Your task to perform on an android device: View the shopping cart on target. Add corsair k70 to the cart on target Image 0: 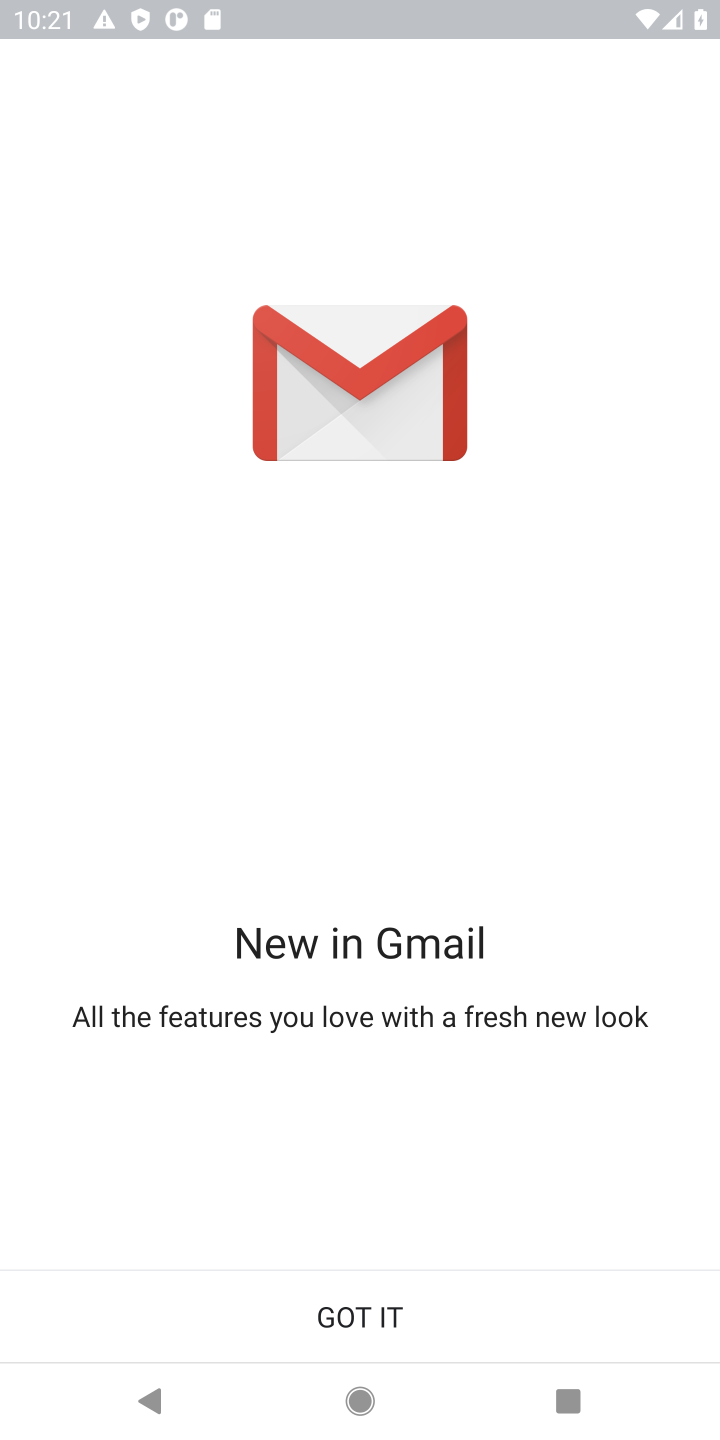
Step 0: press home button
Your task to perform on an android device: View the shopping cart on target. Add corsair k70 to the cart on target Image 1: 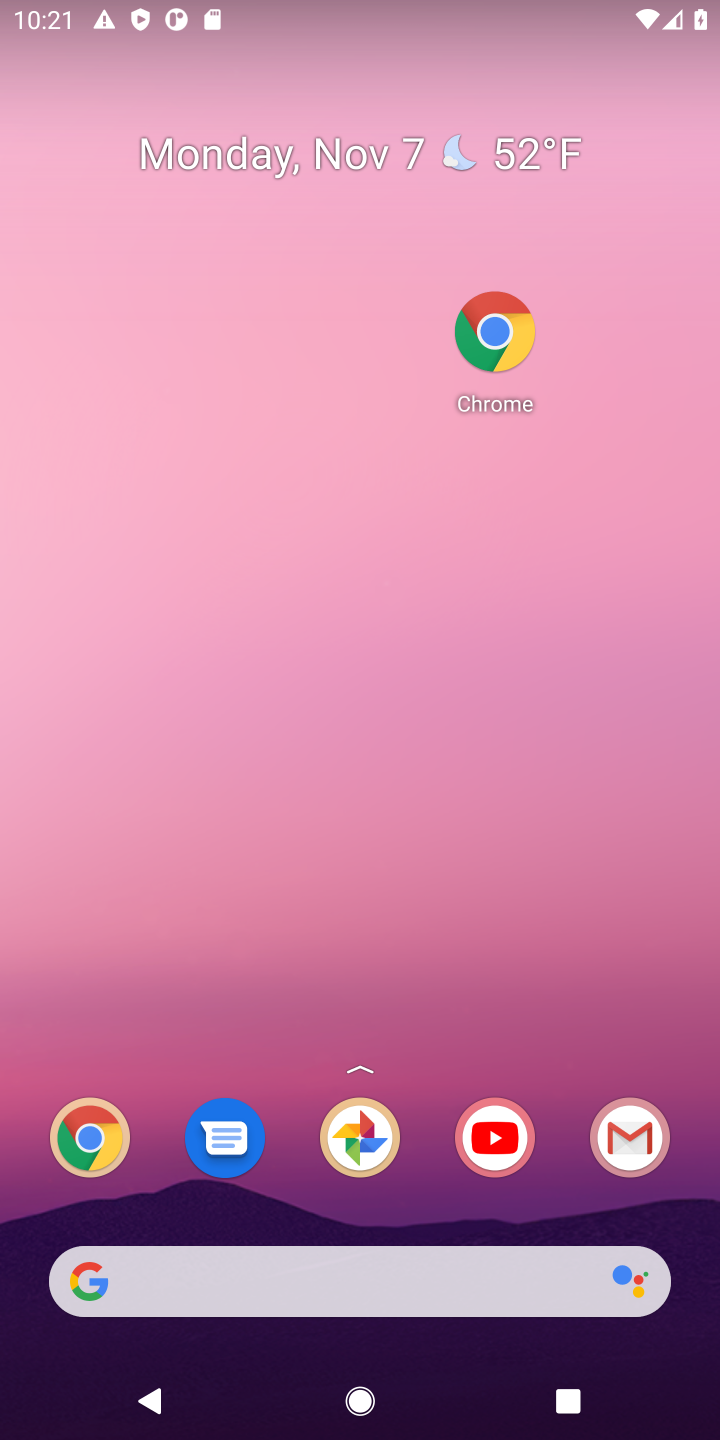
Step 1: drag from (424, 1215) to (214, 235)
Your task to perform on an android device: View the shopping cart on target. Add corsair k70 to the cart on target Image 2: 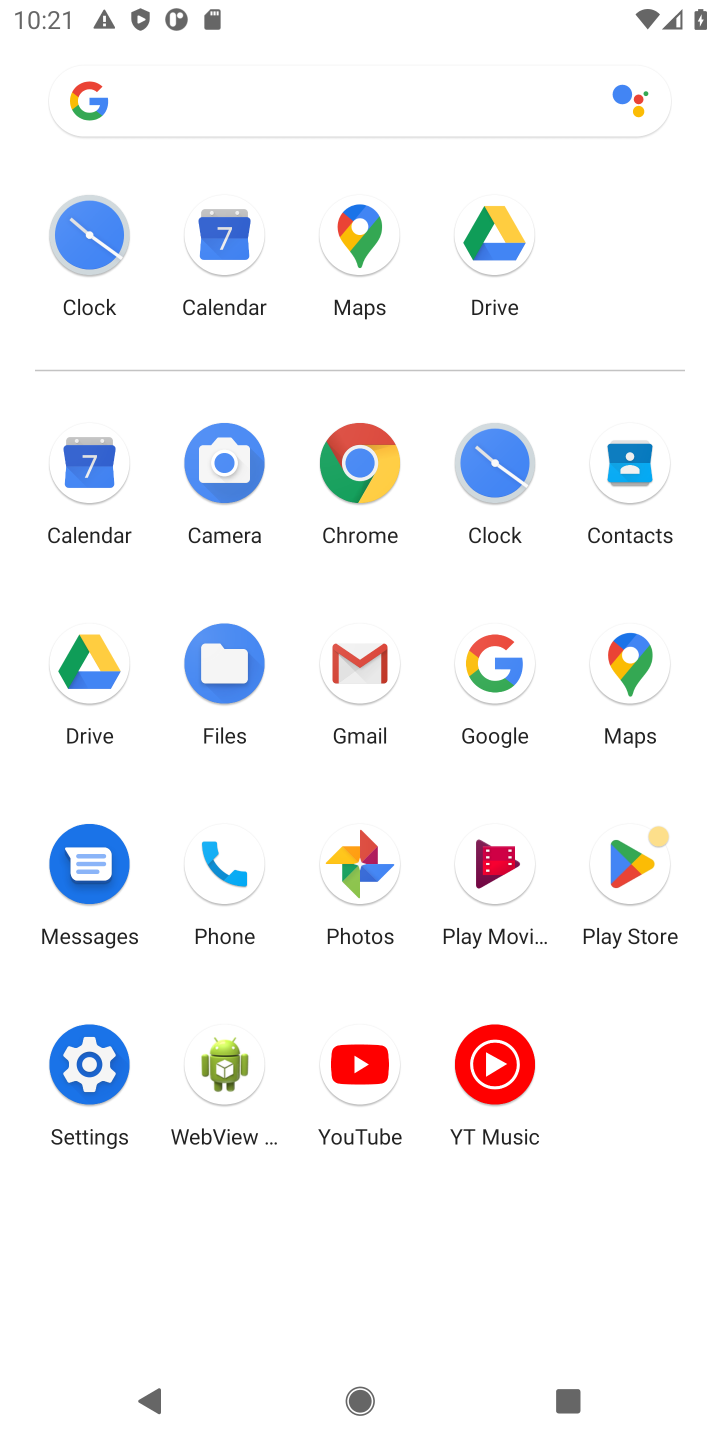
Step 2: click (343, 464)
Your task to perform on an android device: View the shopping cart on target. Add corsair k70 to the cart on target Image 3: 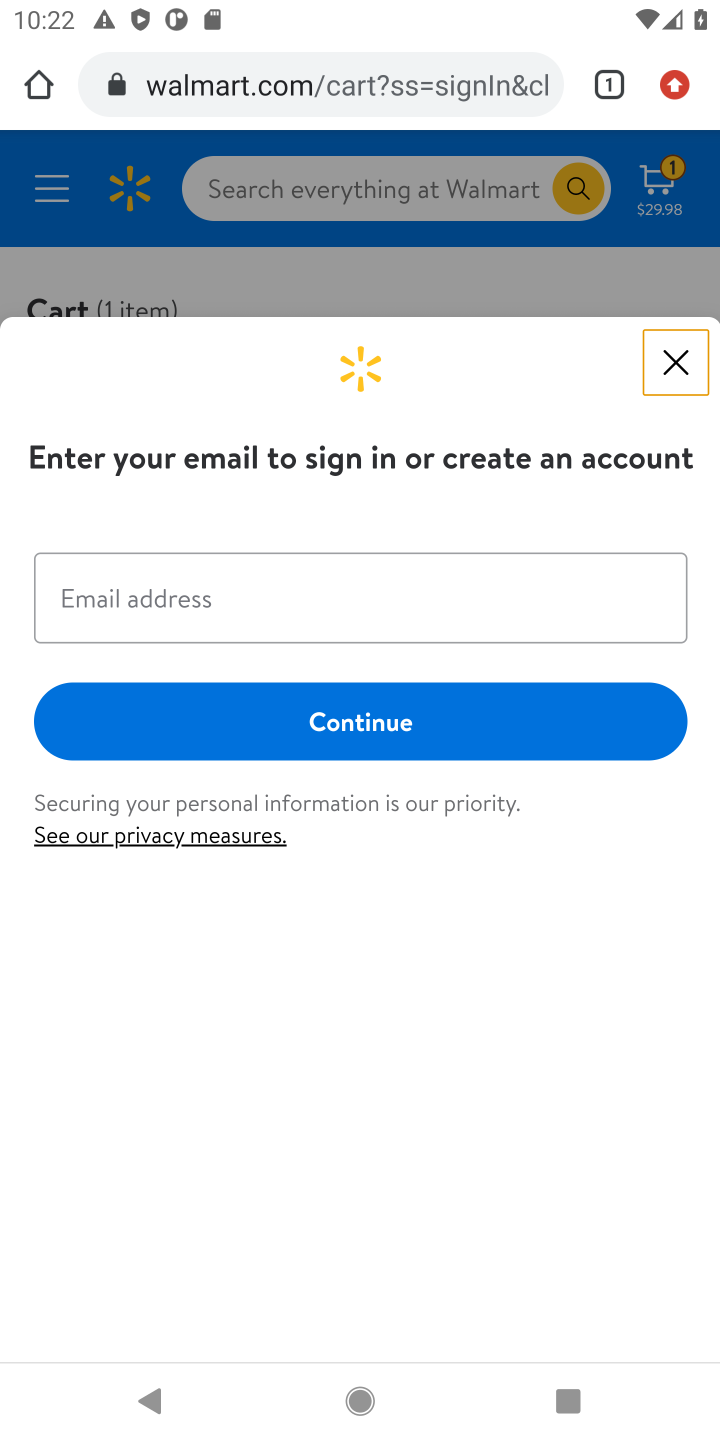
Step 3: click (351, 81)
Your task to perform on an android device: View the shopping cart on target. Add corsair k70 to the cart on target Image 4: 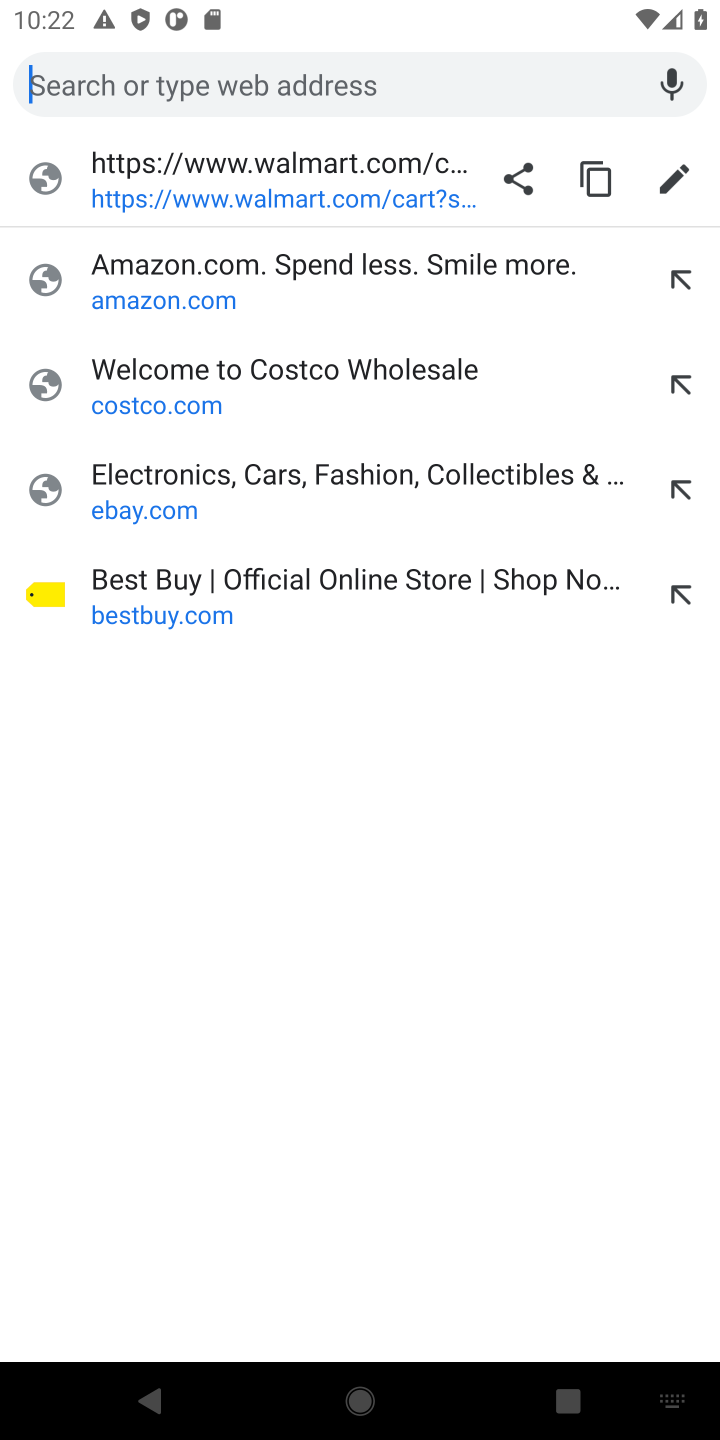
Step 4: type "target.com"
Your task to perform on an android device: View the shopping cart on target. Add corsair k70 to the cart on target Image 5: 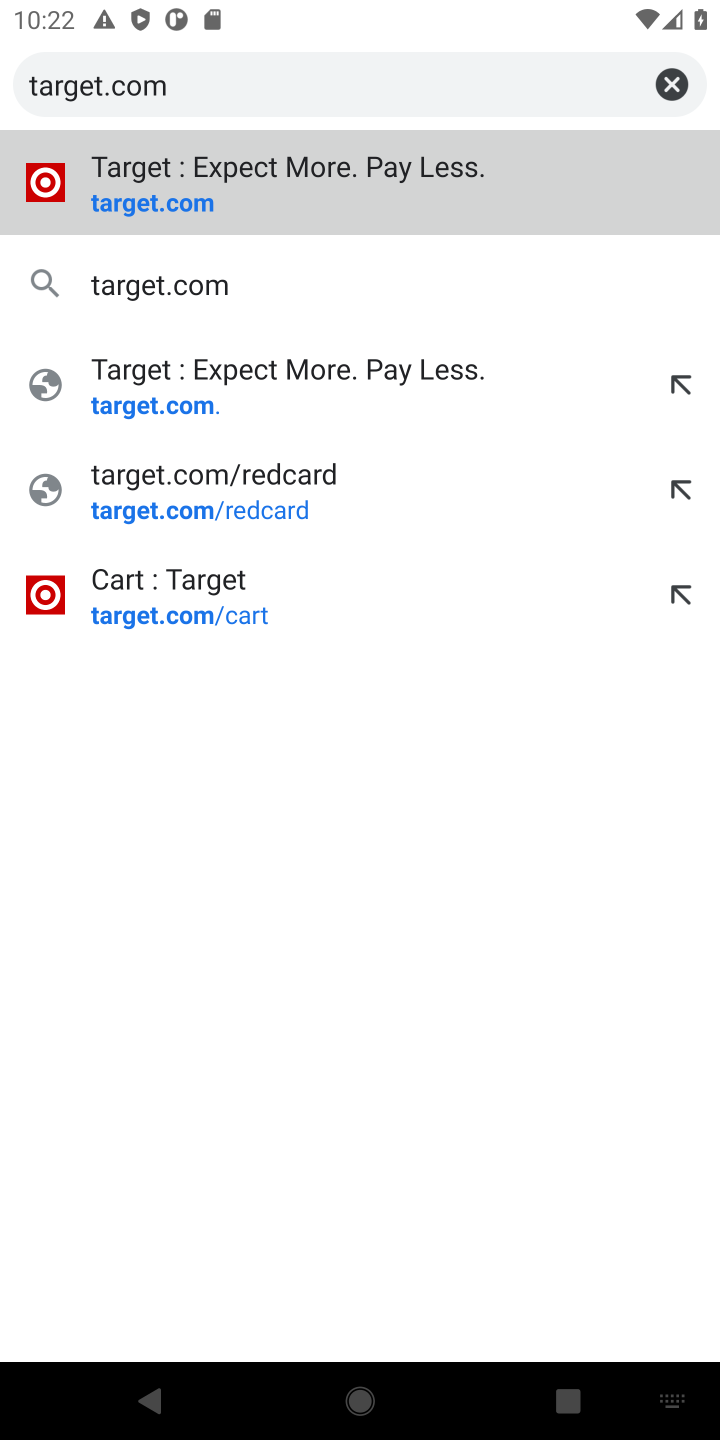
Step 5: press enter
Your task to perform on an android device: View the shopping cart on target. Add corsair k70 to the cart on target Image 6: 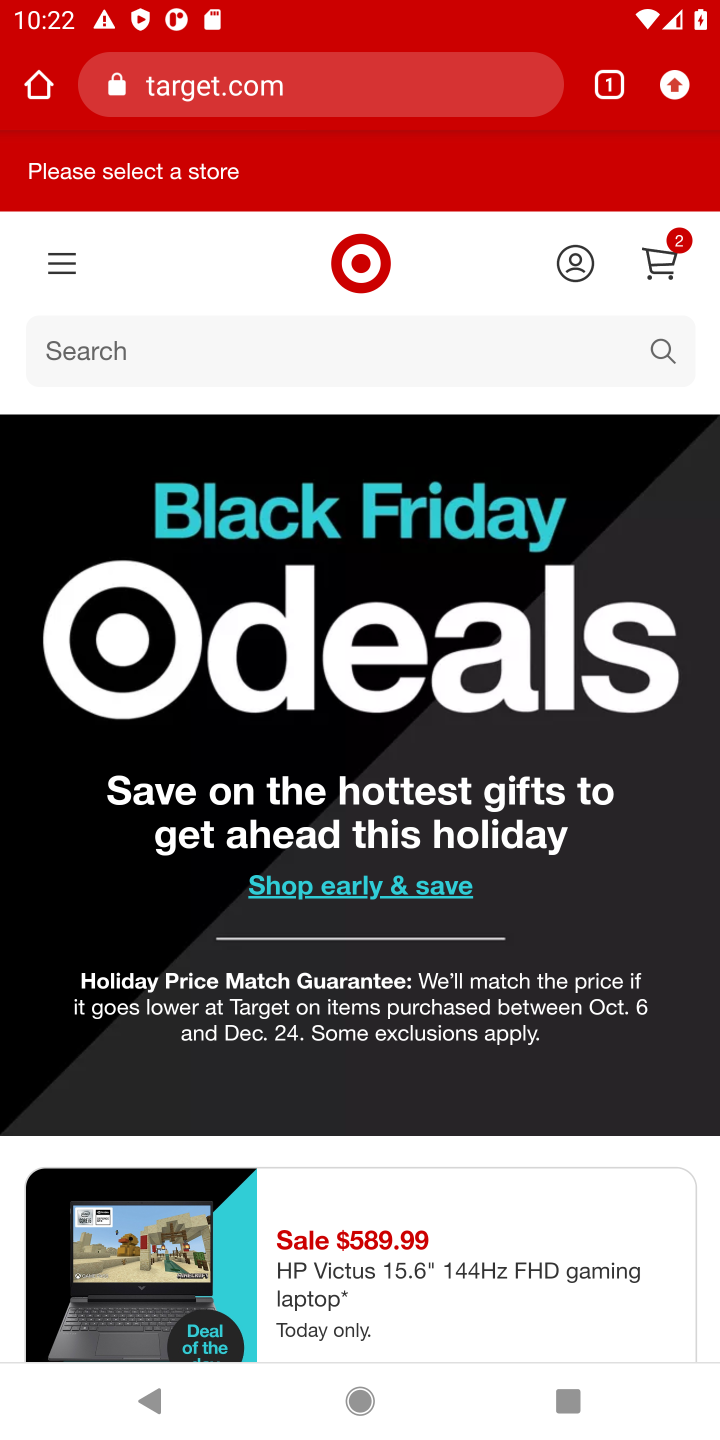
Step 6: click (671, 259)
Your task to perform on an android device: View the shopping cart on target. Add corsair k70 to the cart on target Image 7: 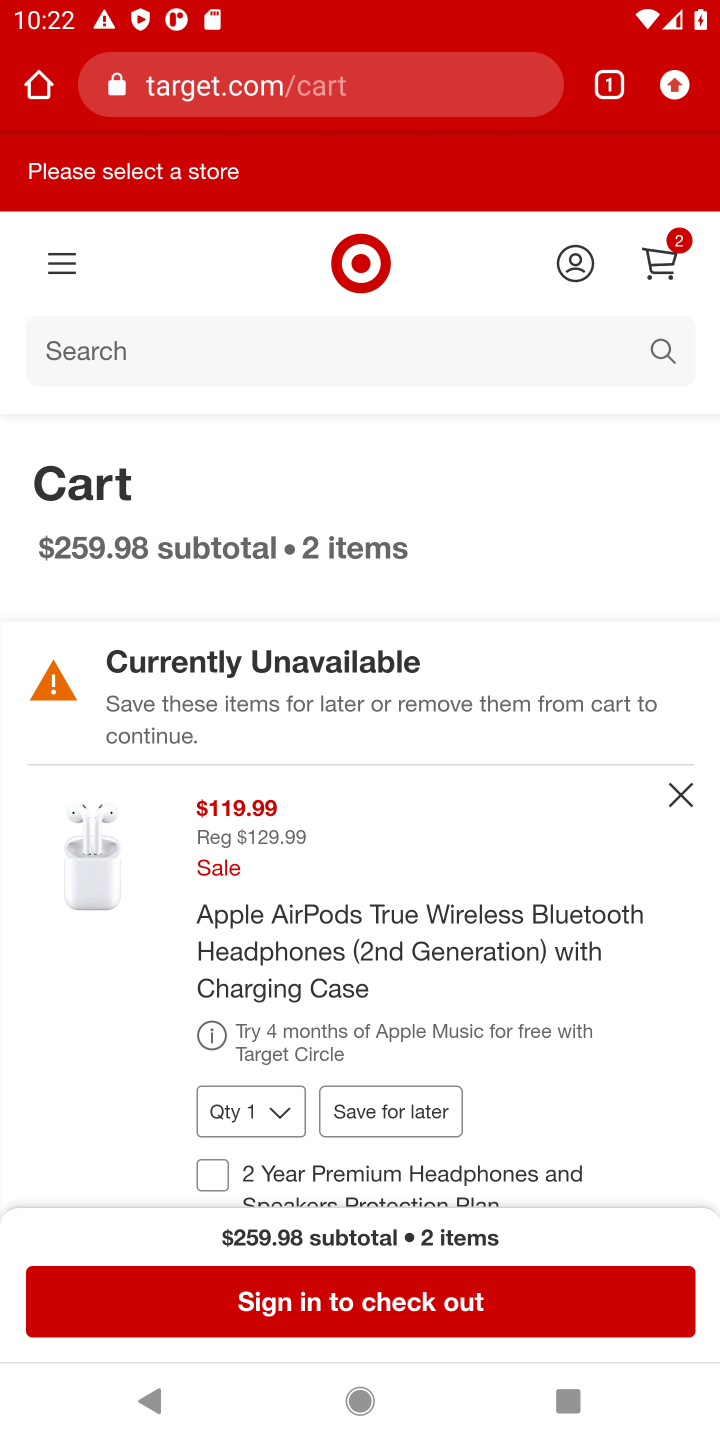
Step 7: click (375, 385)
Your task to perform on an android device: View the shopping cart on target. Add corsair k70 to the cart on target Image 8: 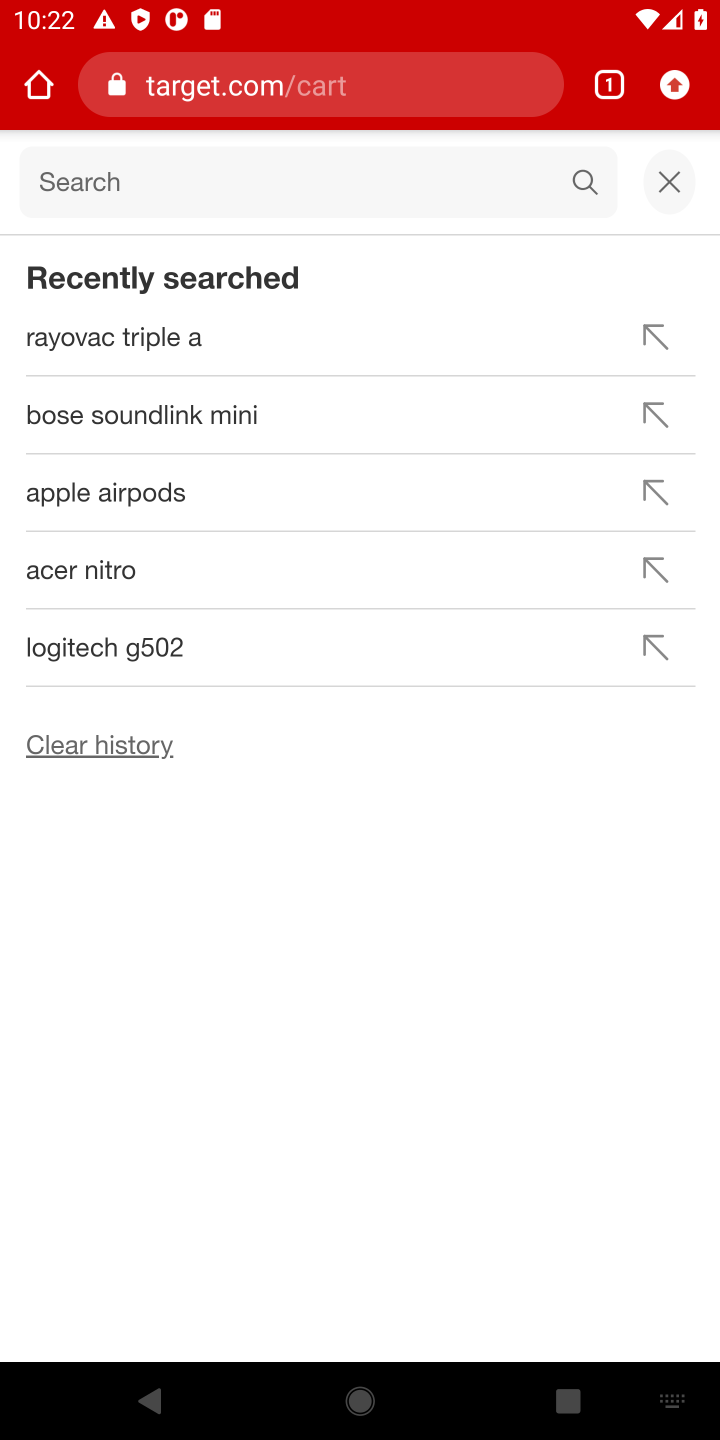
Step 8: type "corsair k70"
Your task to perform on an android device: View the shopping cart on target. Add corsair k70 to the cart on target Image 9: 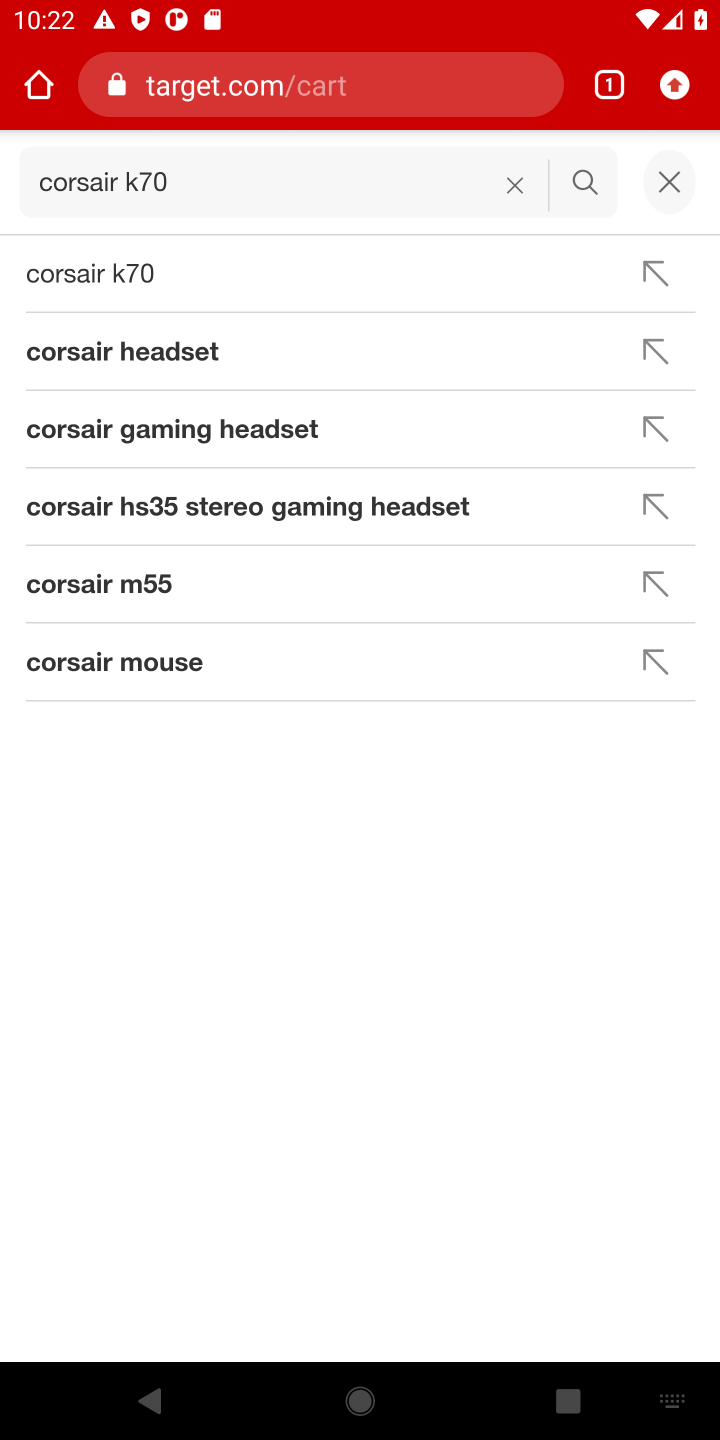
Step 9: press enter
Your task to perform on an android device: View the shopping cart on target. Add corsair k70 to the cart on target Image 10: 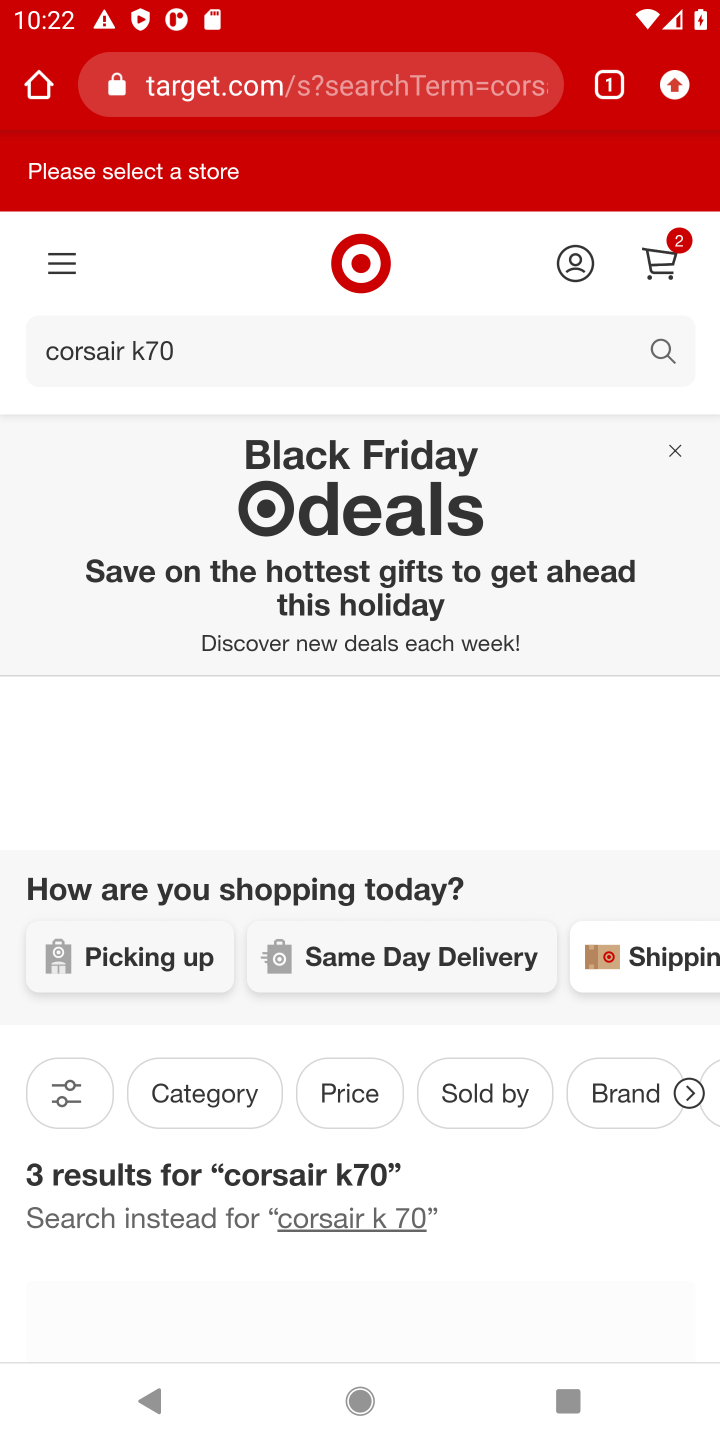
Step 10: task complete